Your task to perform on an android device: Open Maps and search for coffee Image 0: 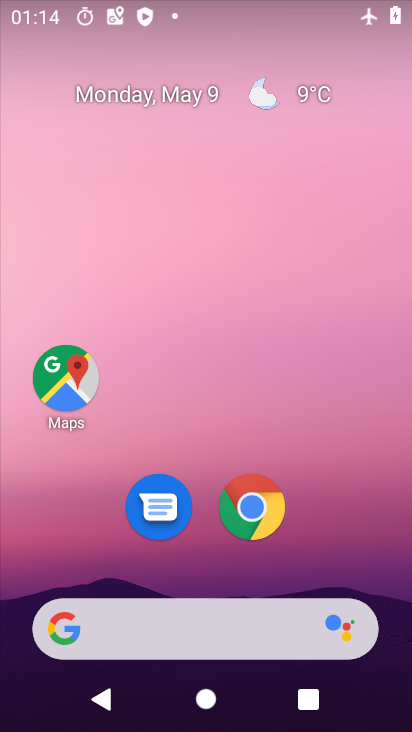
Step 0: drag from (233, 721) to (246, 73)
Your task to perform on an android device: Open Maps and search for coffee Image 1: 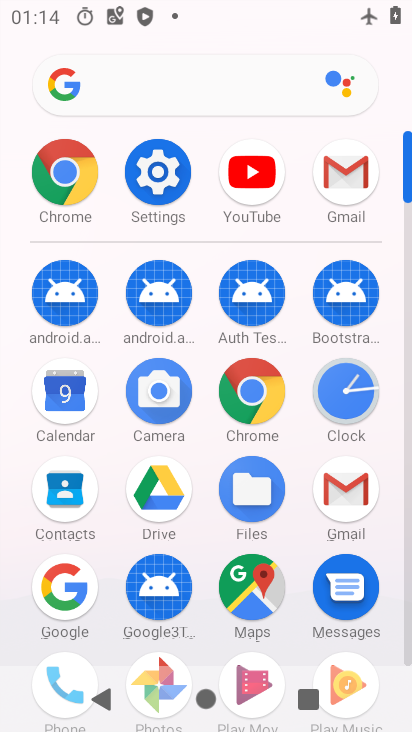
Step 1: click (246, 586)
Your task to perform on an android device: Open Maps and search for coffee Image 2: 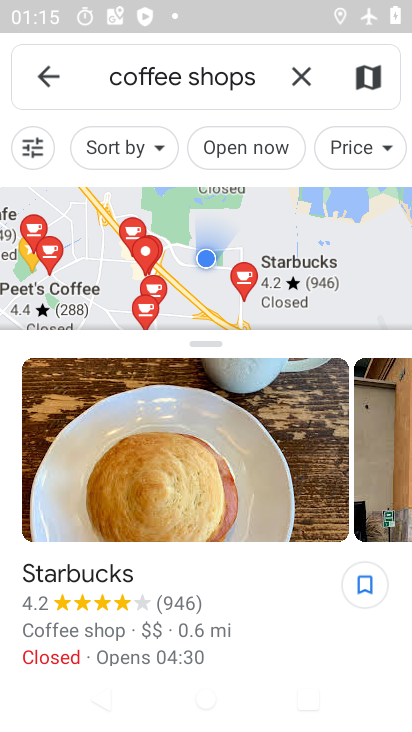
Step 2: task complete